Your task to perform on an android device: turn off priority inbox in the gmail app Image 0: 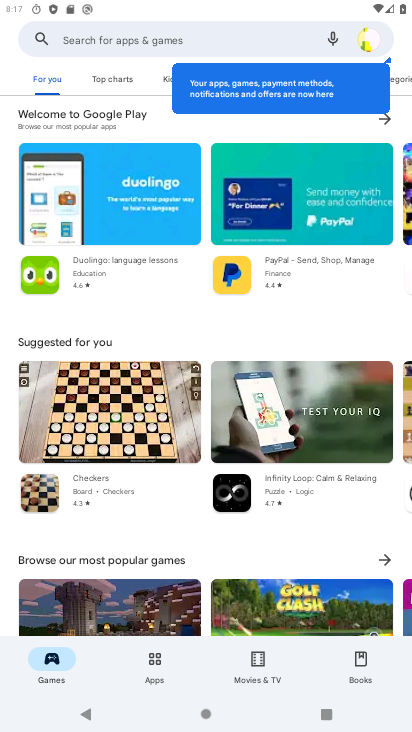
Step 0: press home button
Your task to perform on an android device: turn off priority inbox in the gmail app Image 1: 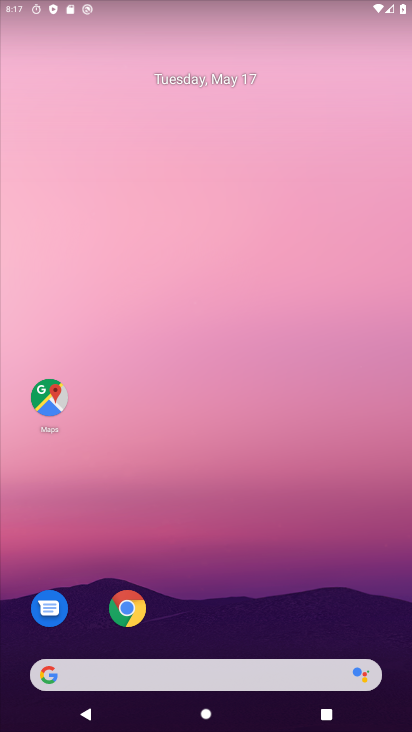
Step 1: drag from (383, 615) to (370, 195)
Your task to perform on an android device: turn off priority inbox in the gmail app Image 2: 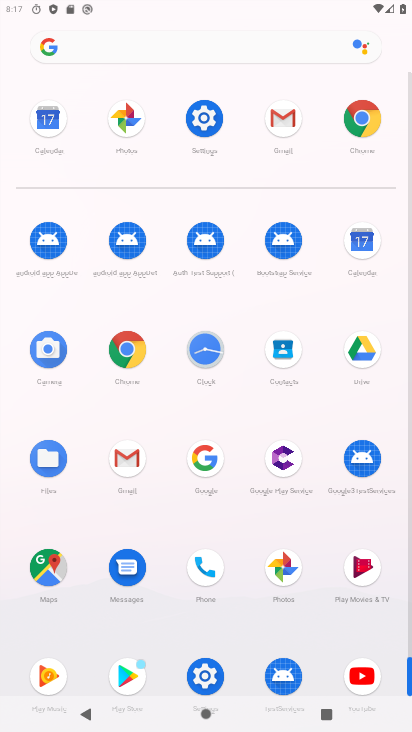
Step 2: click (124, 469)
Your task to perform on an android device: turn off priority inbox in the gmail app Image 3: 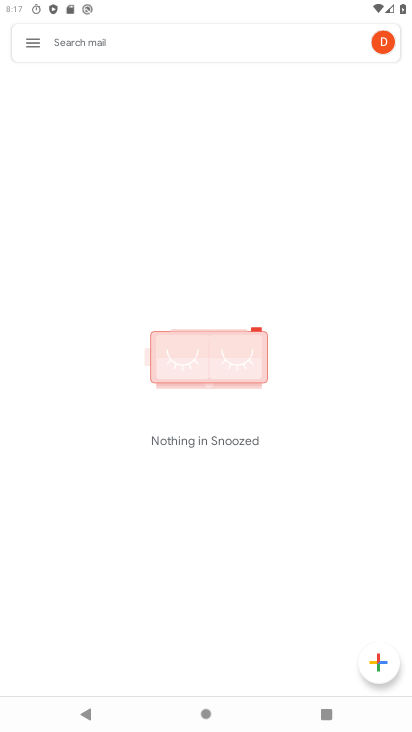
Step 3: click (44, 44)
Your task to perform on an android device: turn off priority inbox in the gmail app Image 4: 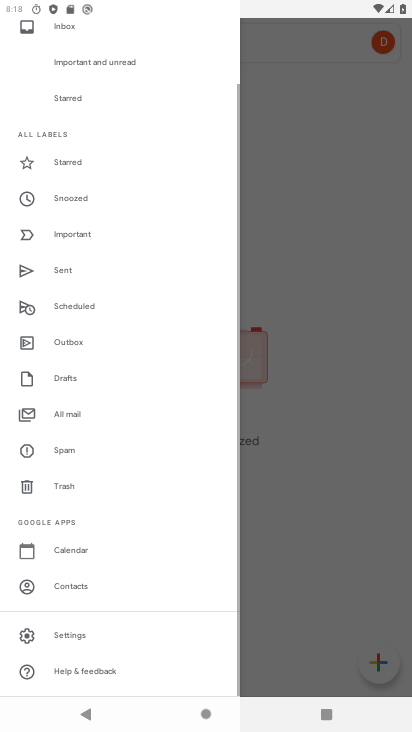
Step 4: click (89, 628)
Your task to perform on an android device: turn off priority inbox in the gmail app Image 5: 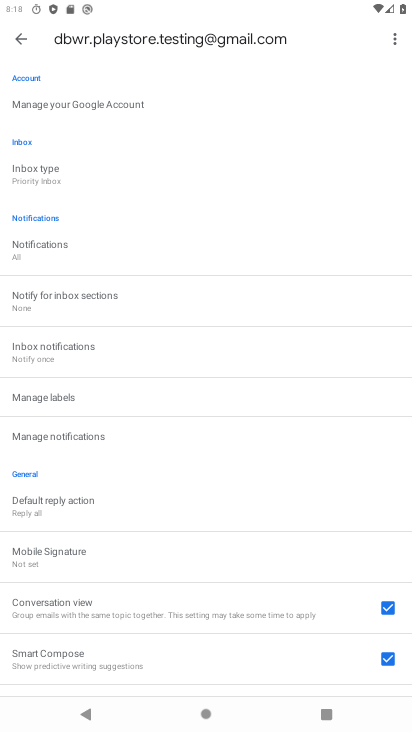
Step 5: click (78, 180)
Your task to perform on an android device: turn off priority inbox in the gmail app Image 6: 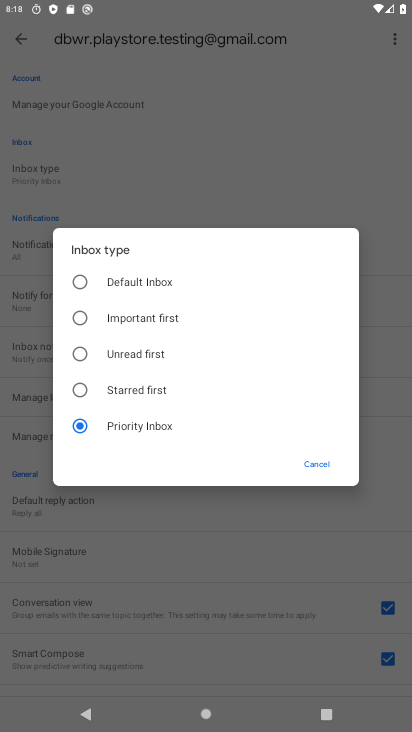
Step 6: click (82, 279)
Your task to perform on an android device: turn off priority inbox in the gmail app Image 7: 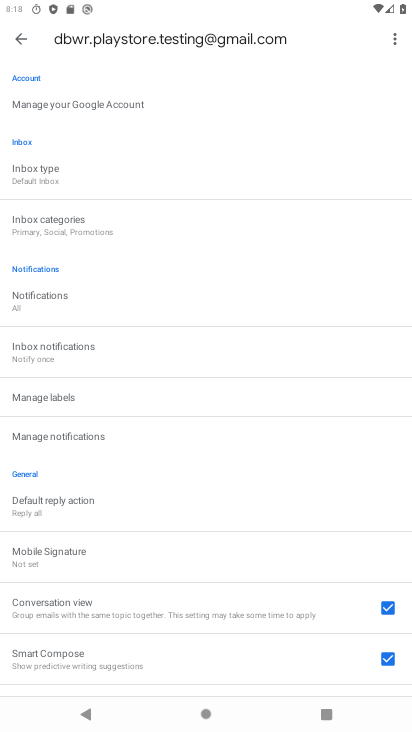
Step 7: task complete